Your task to perform on an android device: Open the web browser Image 0: 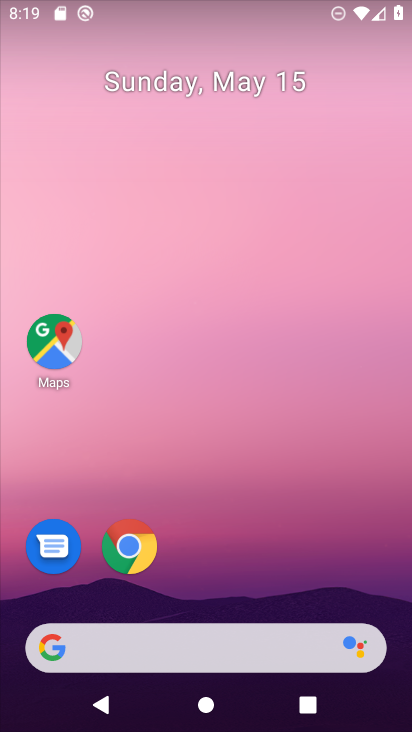
Step 0: click (131, 545)
Your task to perform on an android device: Open the web browser Image 1: 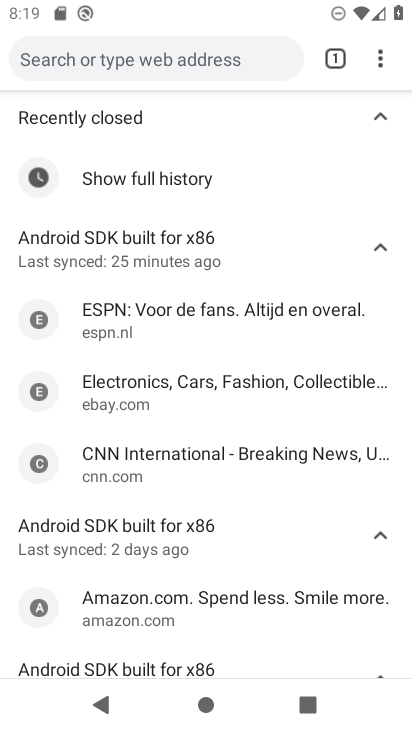
Step 1: task complete